Your task to perform on an android device: Search for vintage wall art on Etsy. Image 0: 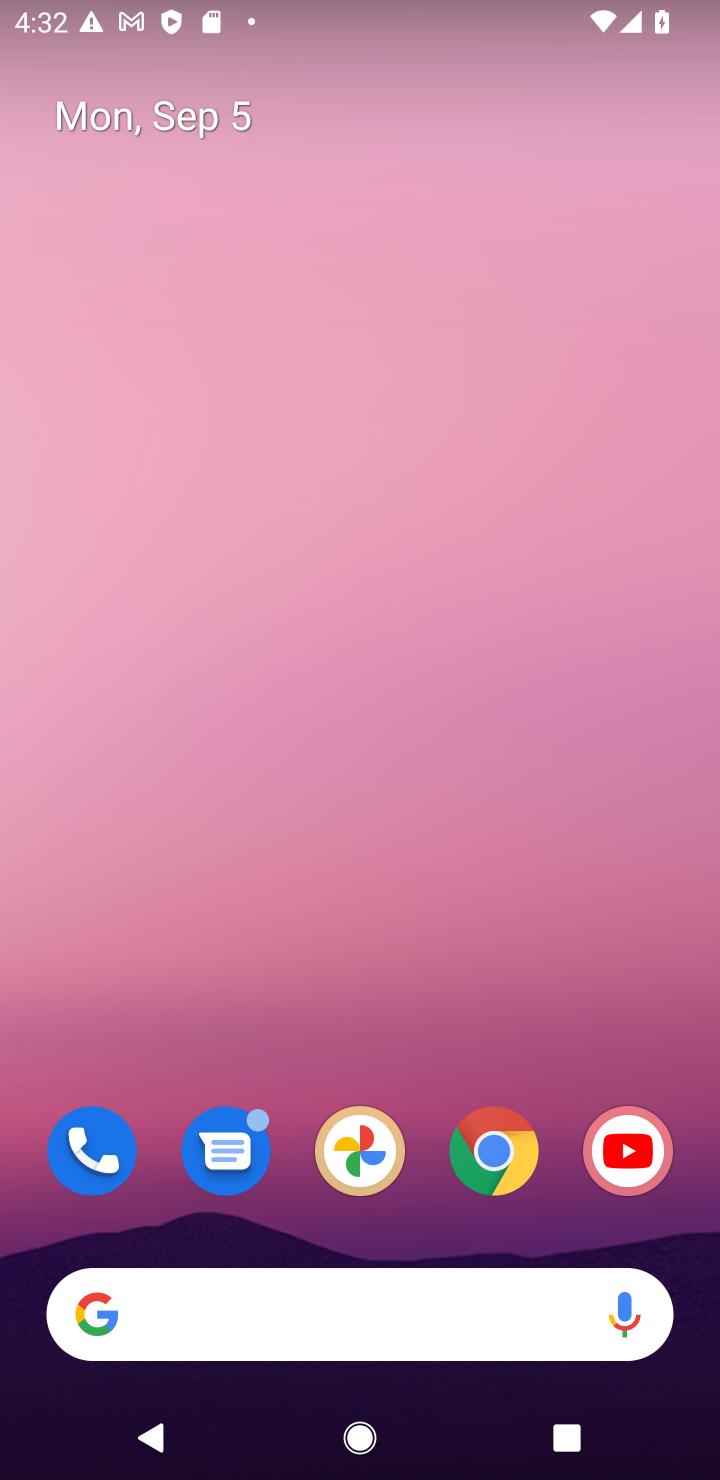
Step 0: click (494, 1187)
Your task to perform on an android device: Search for vintage wall art on Etsy. Image 1: 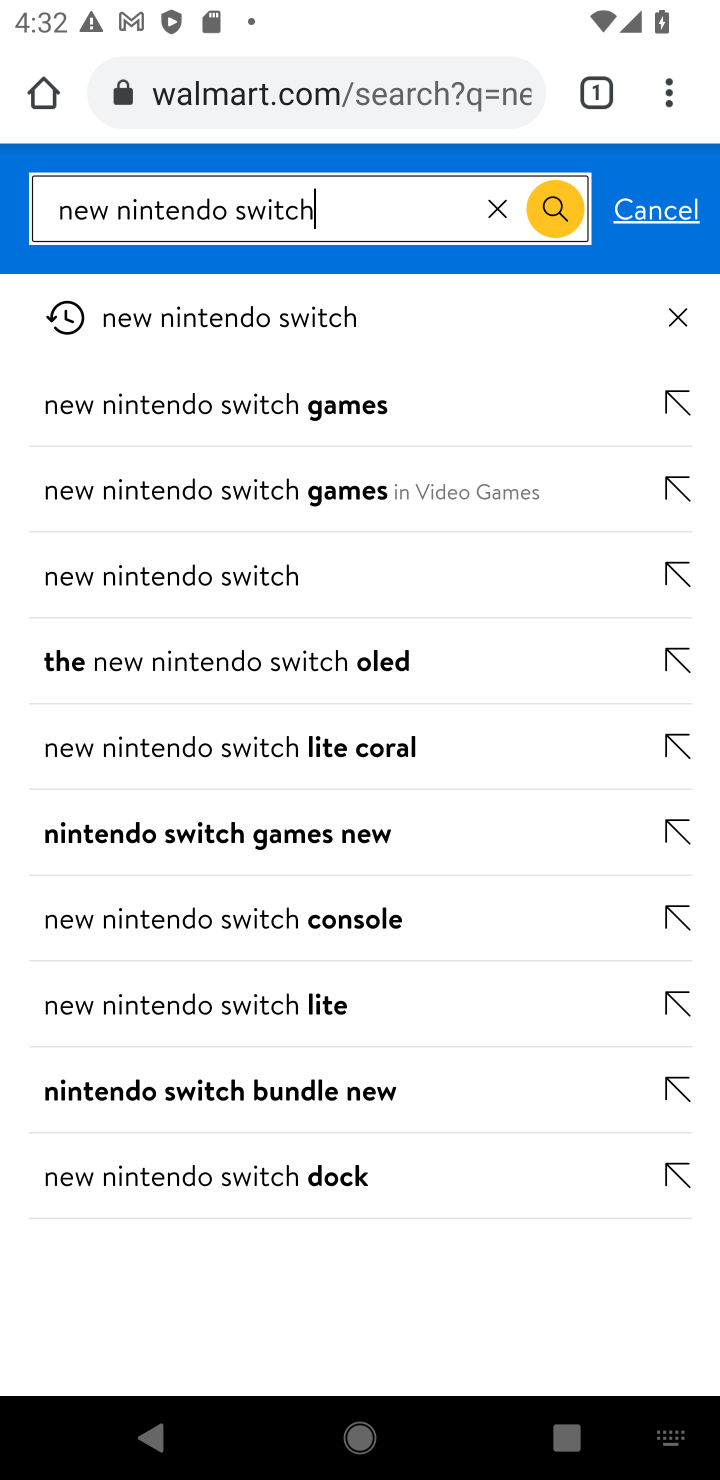
Step 1: click (441, 97)
Your task to perform on an android device: Search for vintage wall art on Etsy. Image 2: 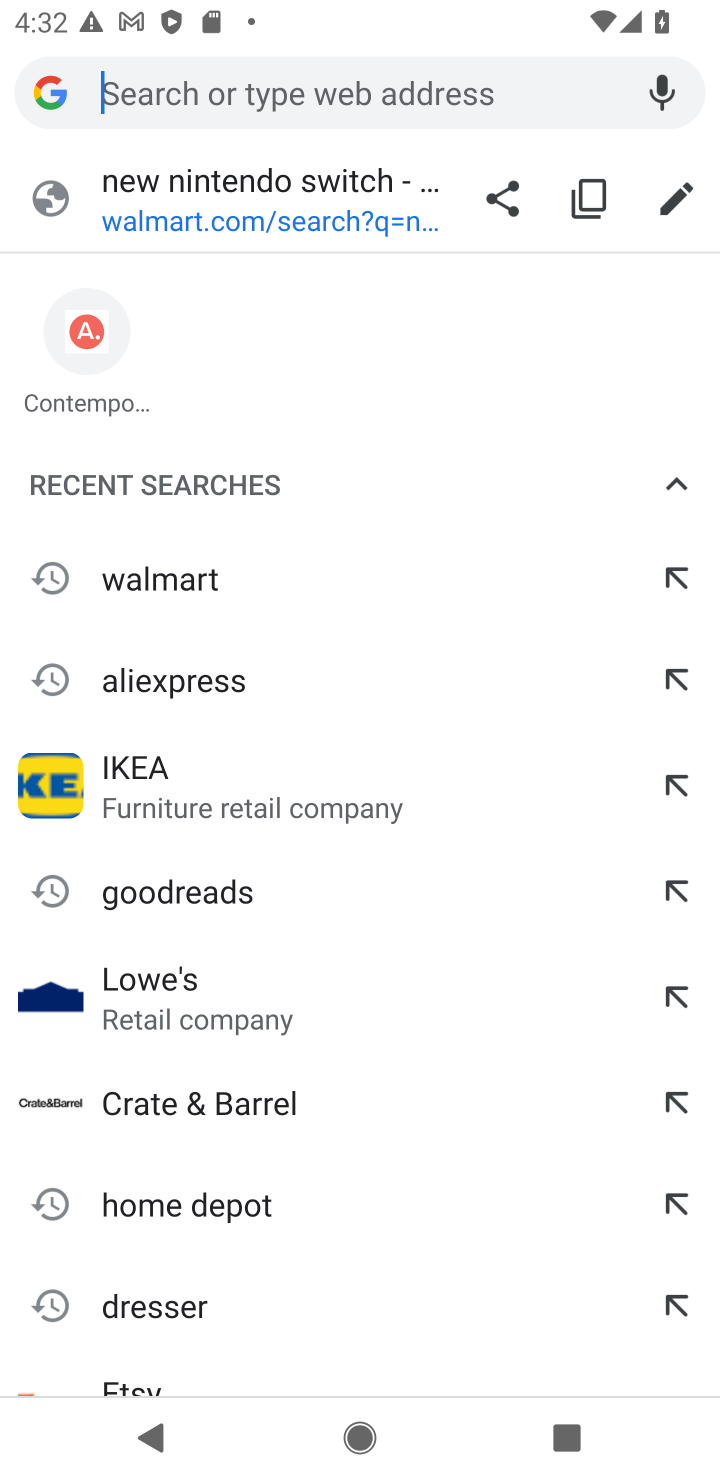
Step 2: type "Etsy"
Your task to perform on an android device: Search for vintage wall art on Etsy. Image 3: 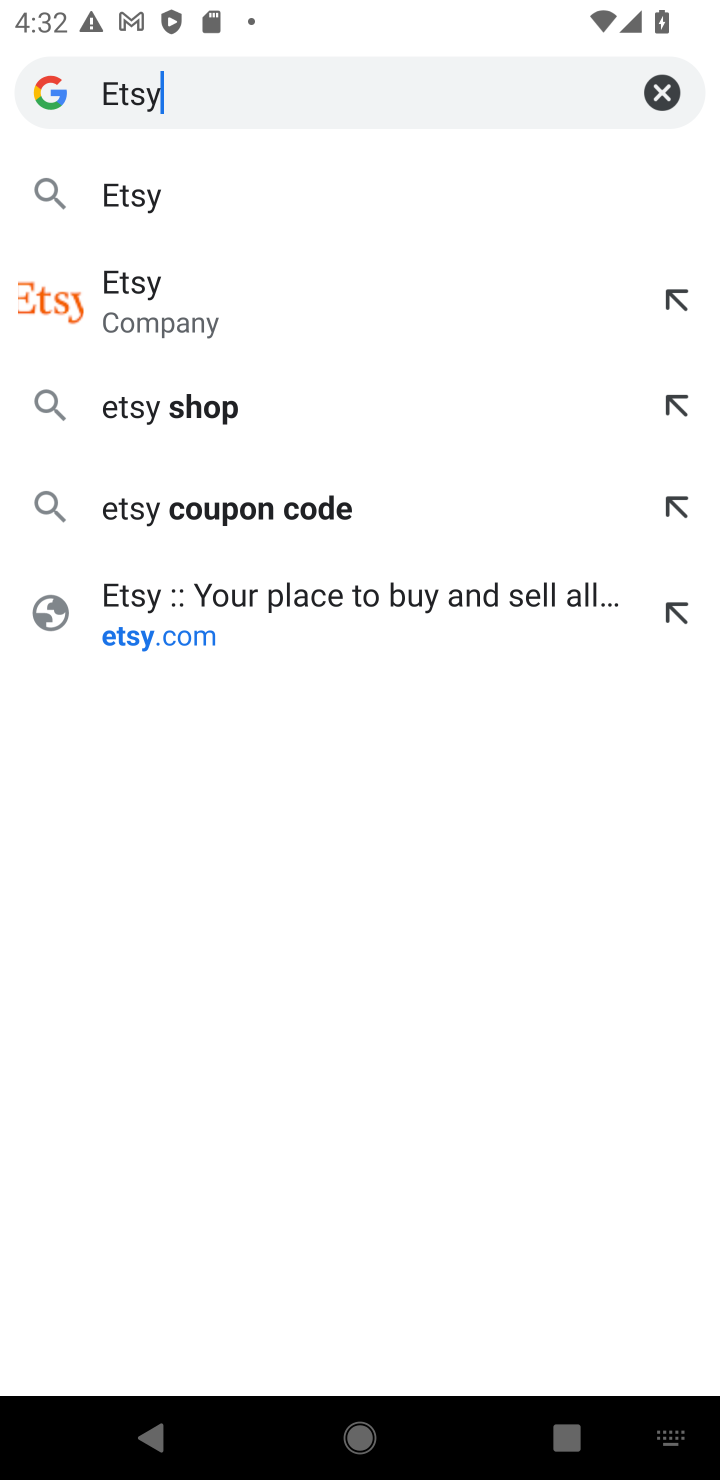
Step 3: click (452, 299)
Your task to perform on an android device: Search for vintage wall art on Etsy. Image 4: 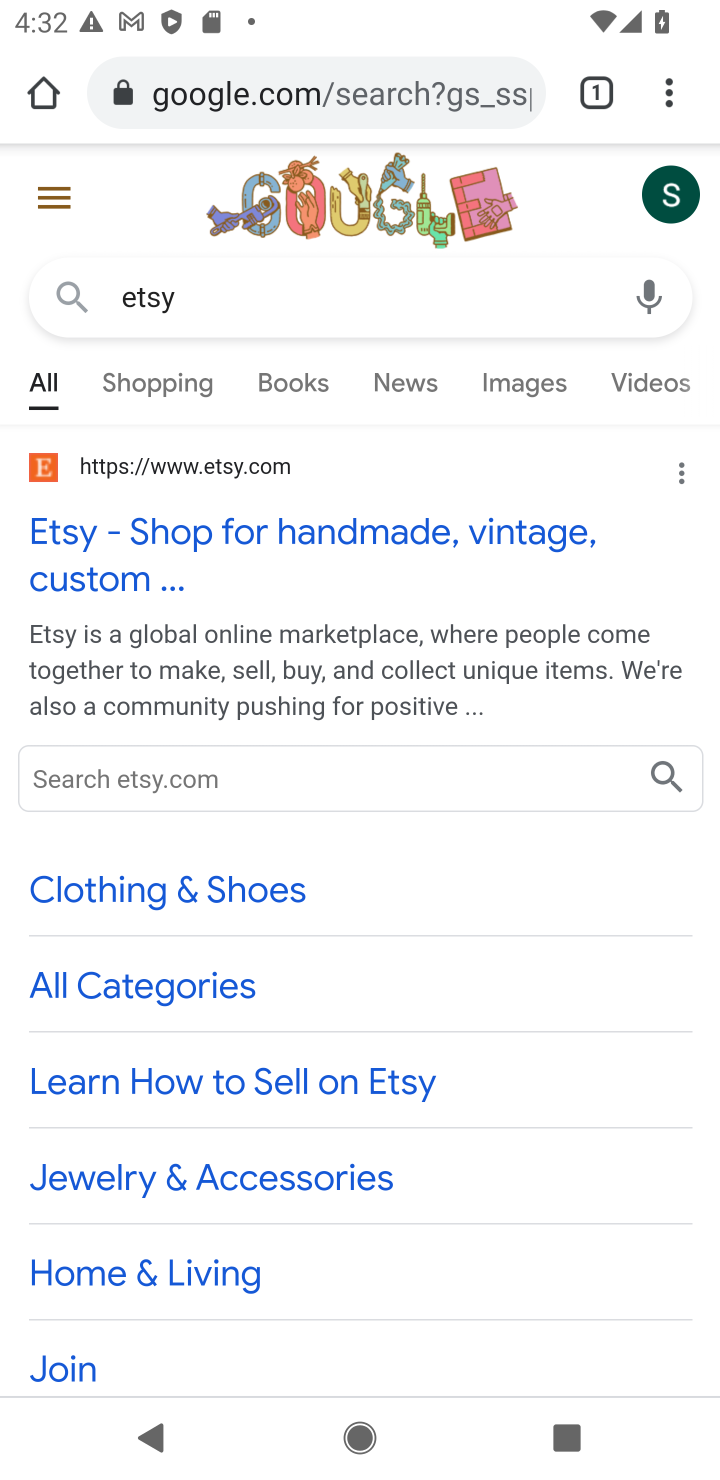
Step 4: click (106, 532)
Your task to perform on an android device: Search for vintage wall art on Etsy. Image 5: 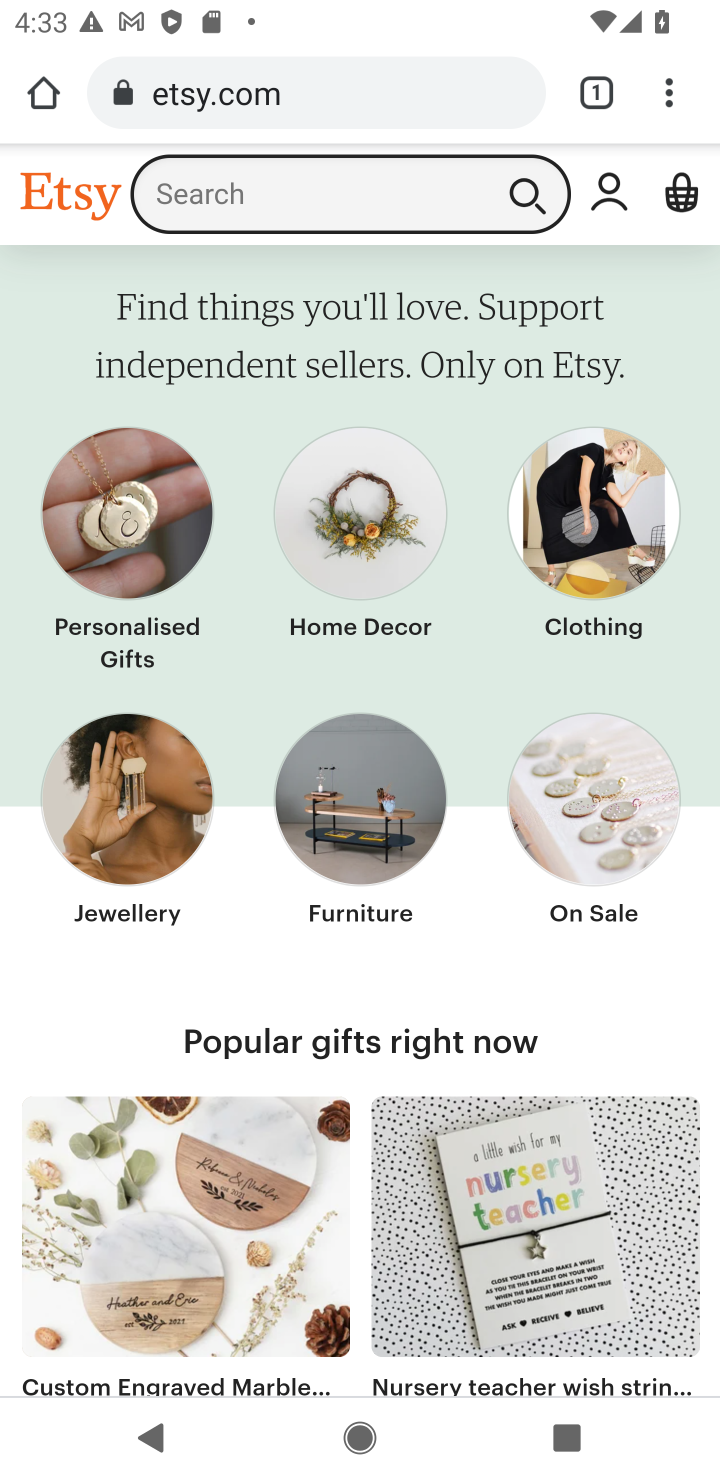
Step 5: click (445, 184)
Your task to perform on an android device: Search for vintage wall art on Etsy. Image 6: 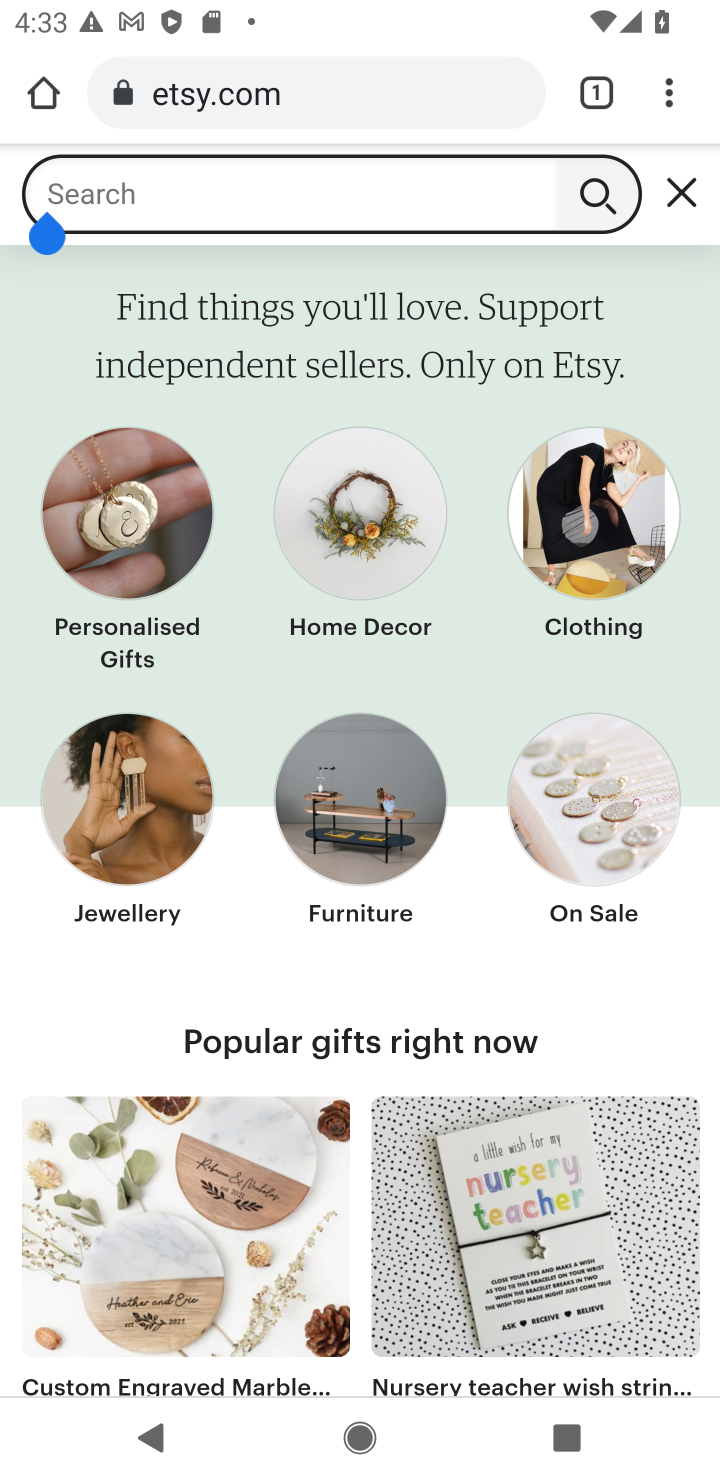
Step 6: type "vintage wall art"
Your task to perform on an android device: Search for vintage wall art on Etsy. Image 7: 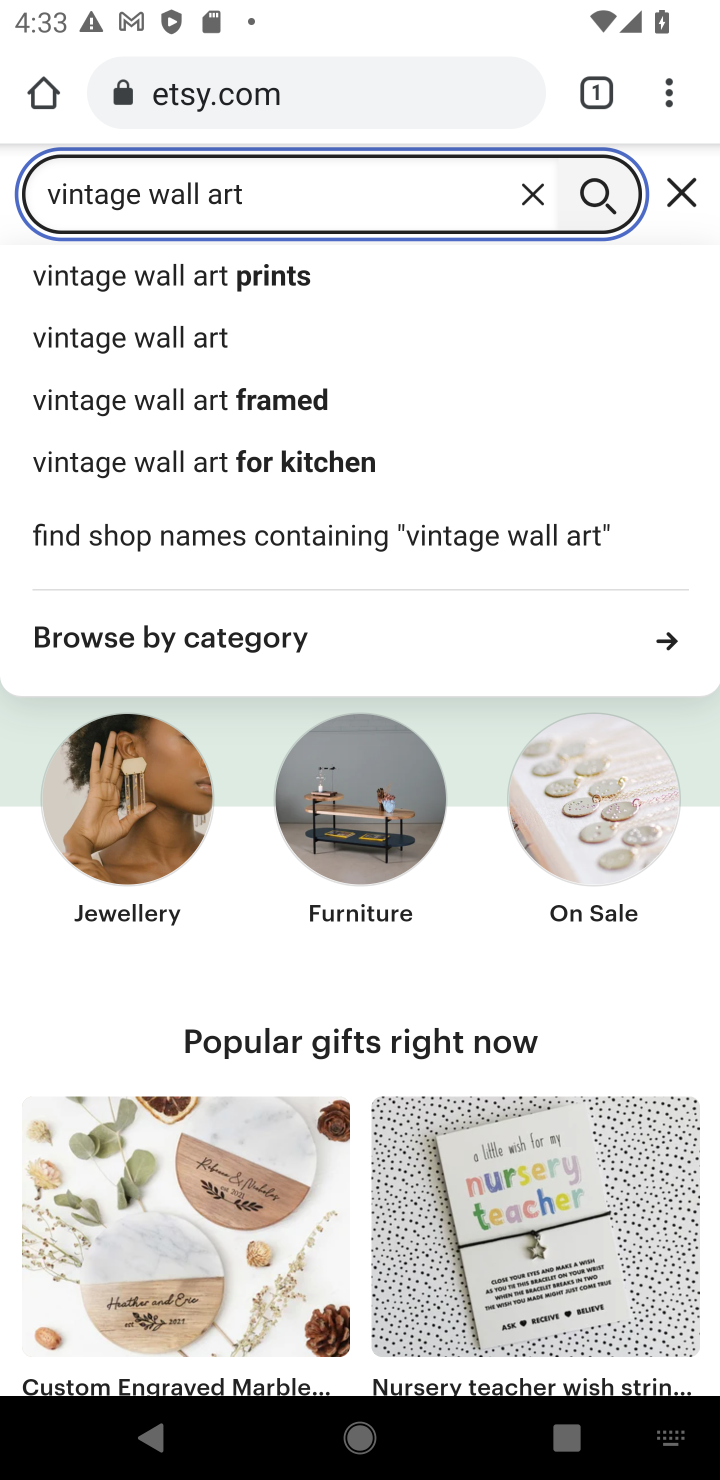
Step 7: click (125, 331)
Your task to perform on an android device: Search for vintage wall art on Etsy. Image 8: 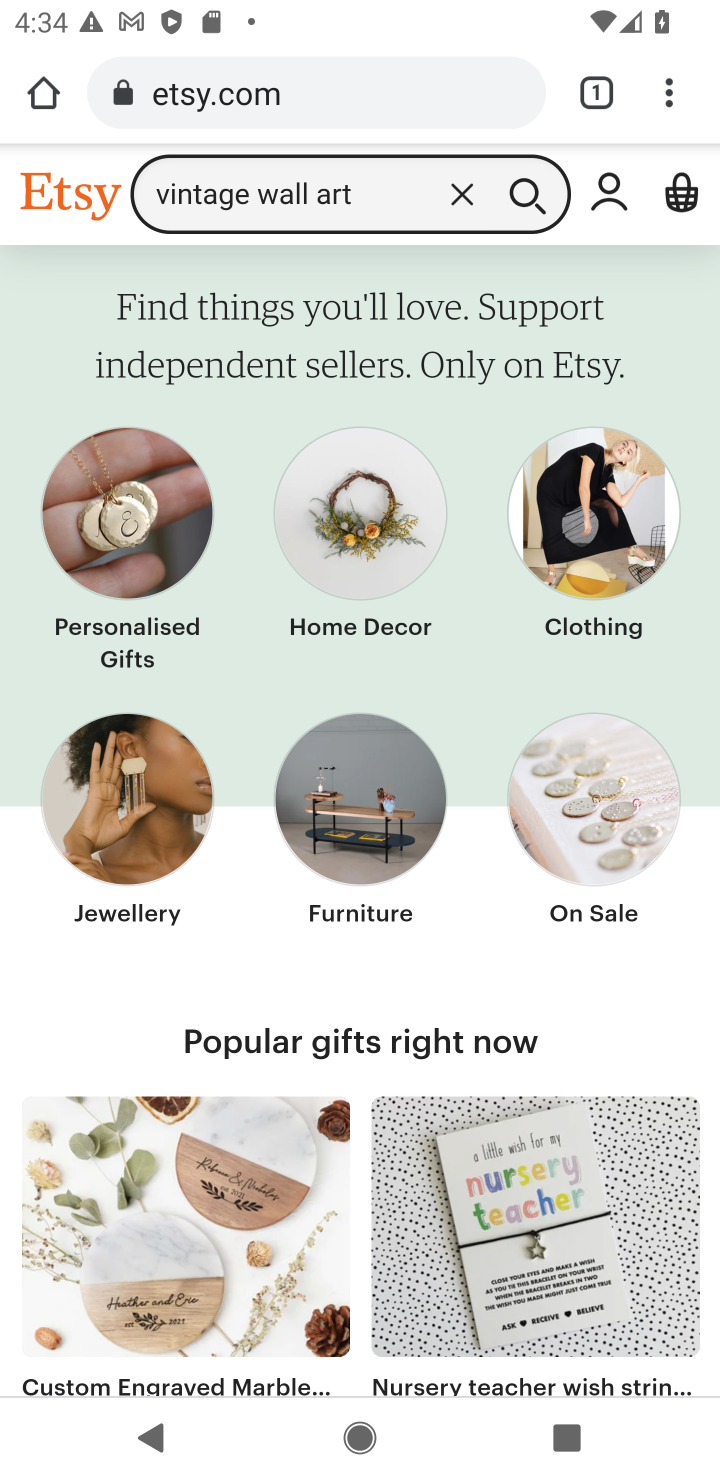
Step 8: click (526, 207)
Your task to perform on an android device: Search for vintage wall art on Etsy. Image 9: 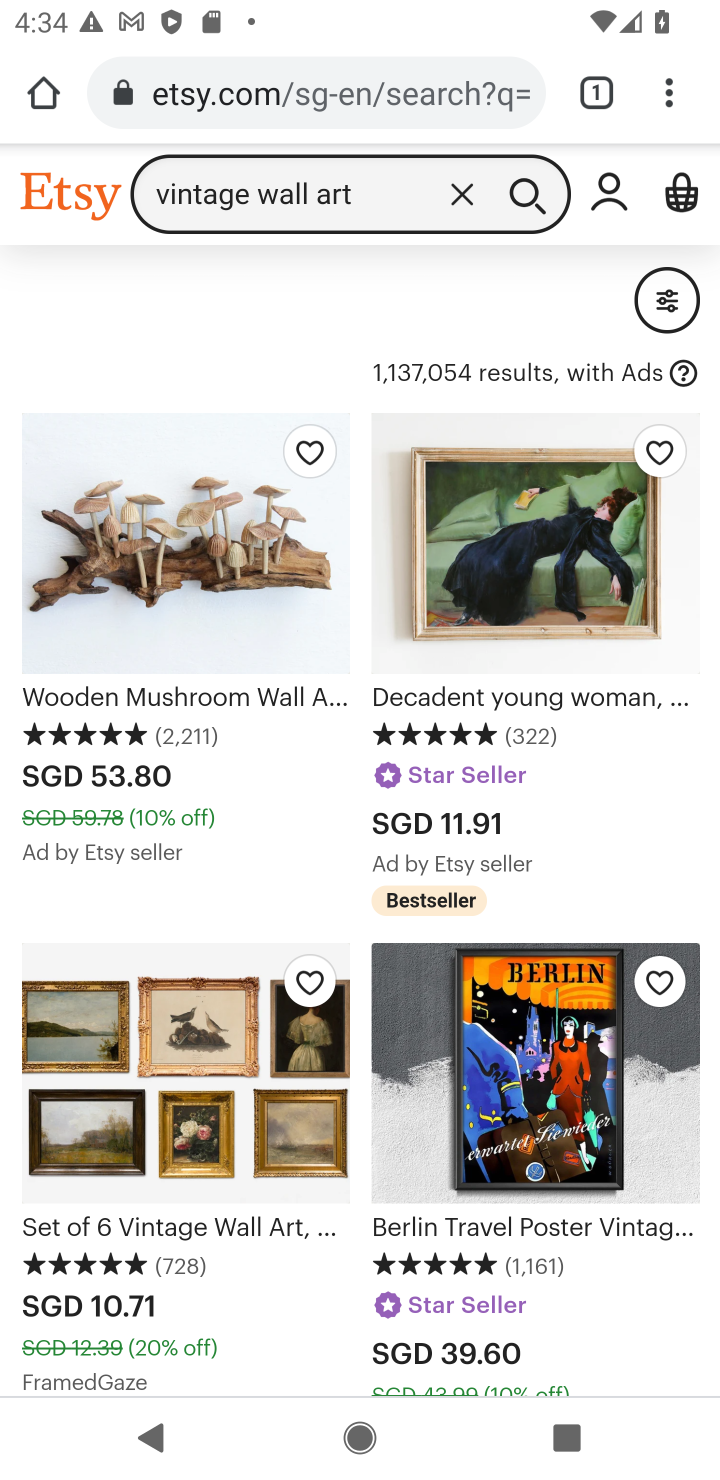
Step 9: task complete